Your task to perform on an android device: Check the news Image 0: 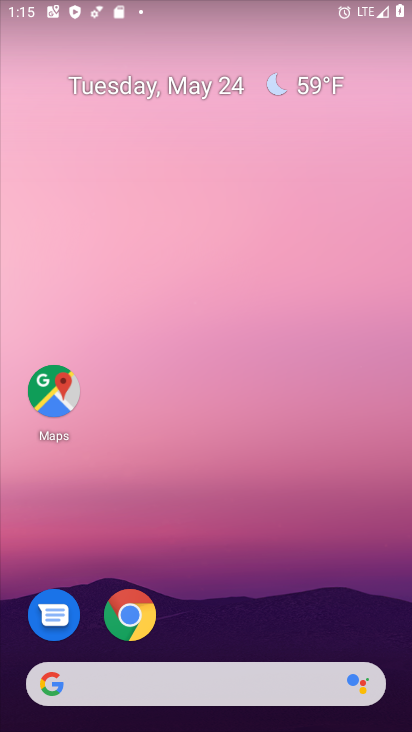
Step 0: drag from (233, 567) to (242, 61)
Your task to perform on an android device: Check the news Image 1: 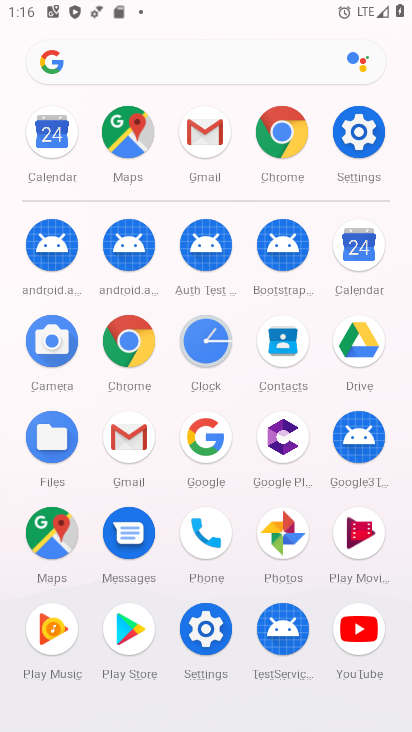
Step 1: drag from (5, 612) to (24, 260)
Your task to perform on an android device: Check the news Image 2: 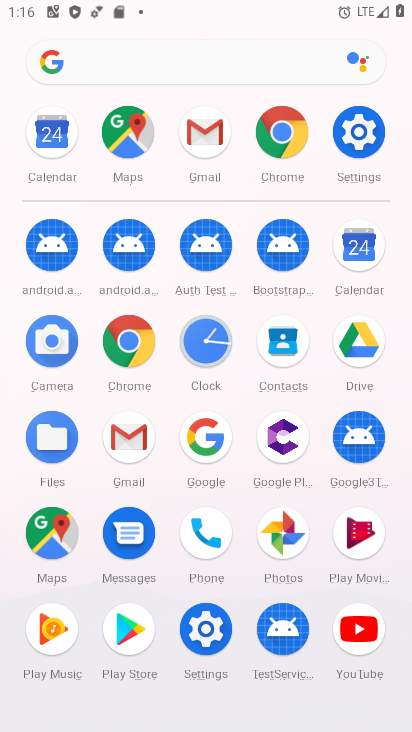
Step 2: click (126, 336)
Your task to perform on an android device: Check the news Image 3: 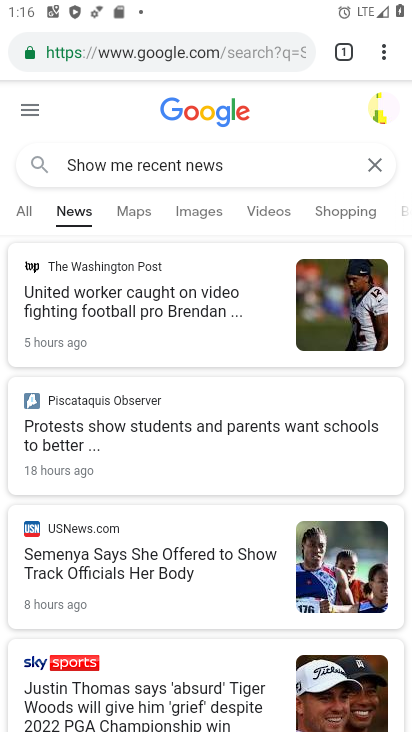
Step 3: task complete